Your task to perform on an android device: Show me popular videos on Youtube Image 0: 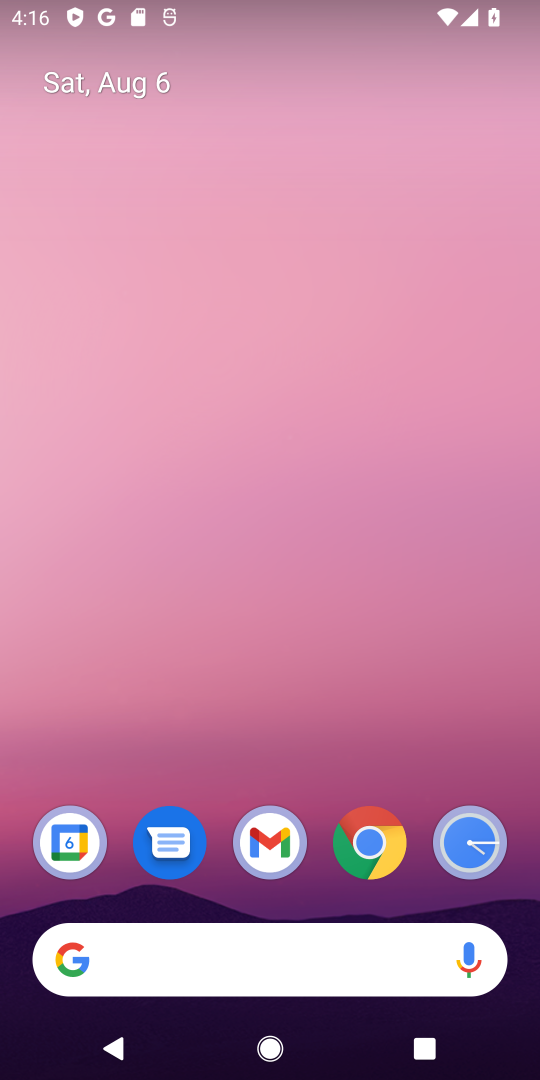
Step 0: drag from (497, 1047) to (413, 191)
Your task to perform on an android device: Show me popular videos on Youtube Image 1: 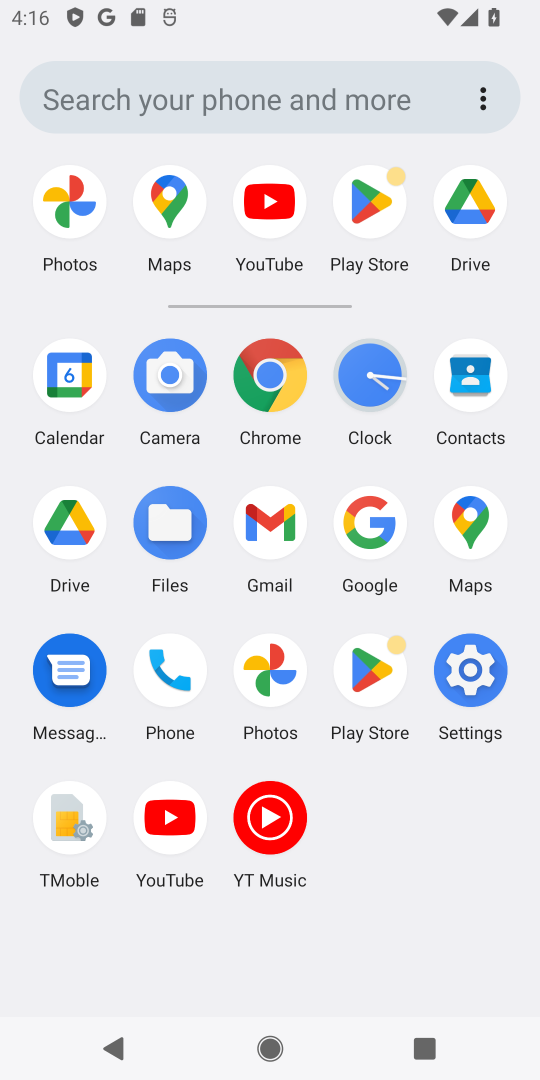
Step 1: click (266, 209)
Your task to perform on an android device: Show me popular videos on Youtube Image 2: 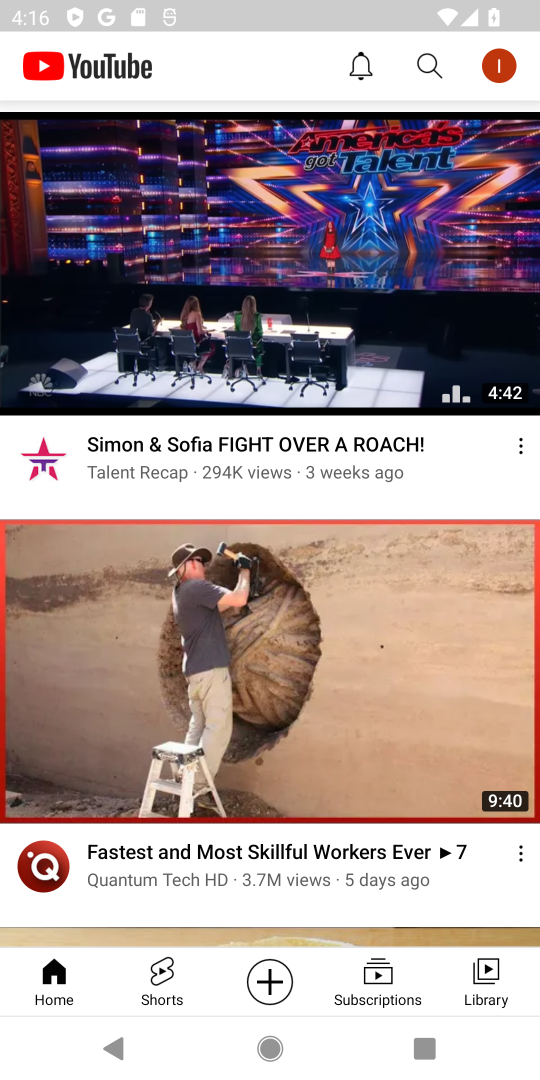
Step 2: click (422, 65)
Your task to perform on an android device: Show me popular videos on Youtube Image 3: 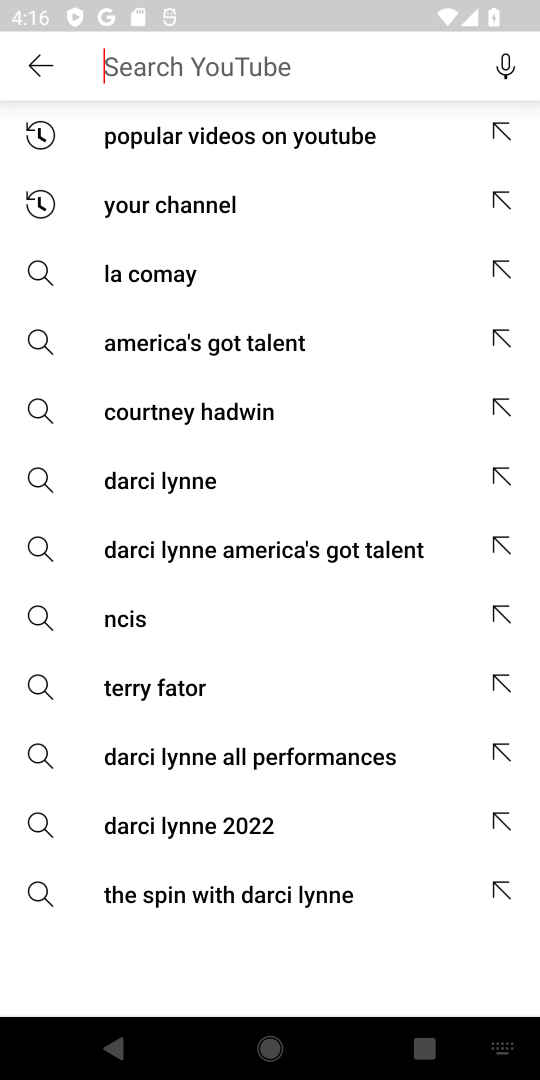
Step 3: type "popular videos on Youtube"
Your task to perform on an android device: Show me popular videos on Youtube Image 4: 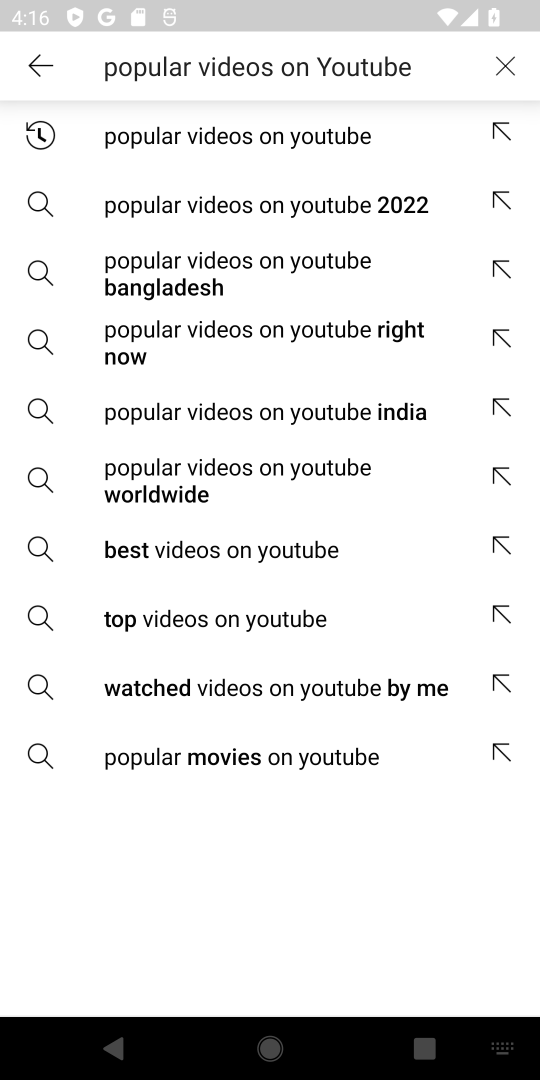
Step 4: click (338, 123)
Your task to perform on an android device: Show me popular videos on Youtube Image 5: 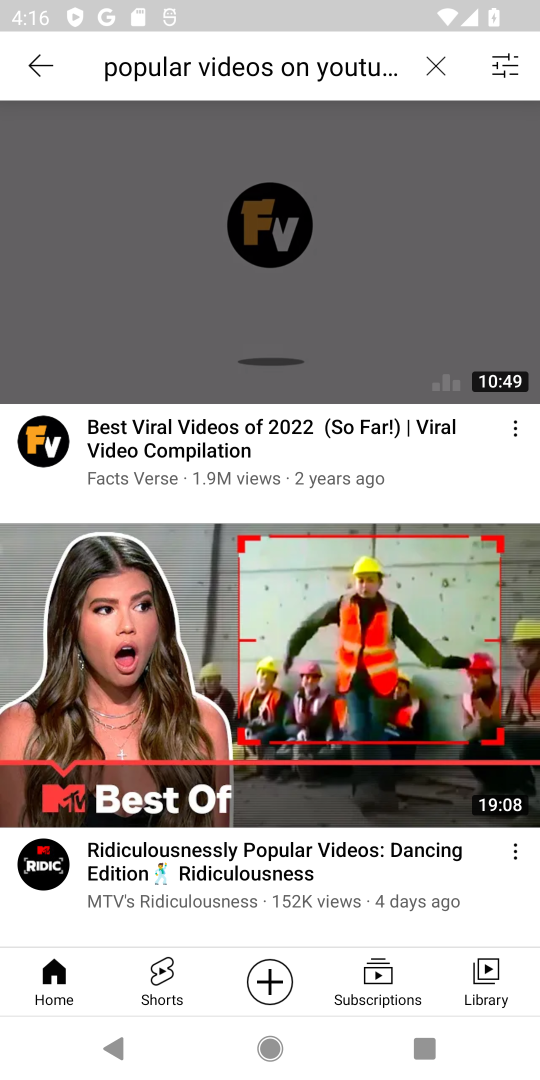
Step 5: task complete